Your task to perform on an android device: Open the stopwatch Image 0: 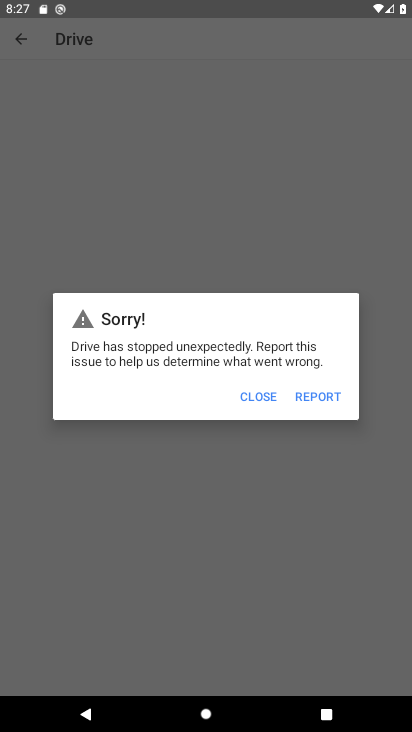
Step 0: press home button
Your task to perform on an android device: Open the stopwatch Image 1: 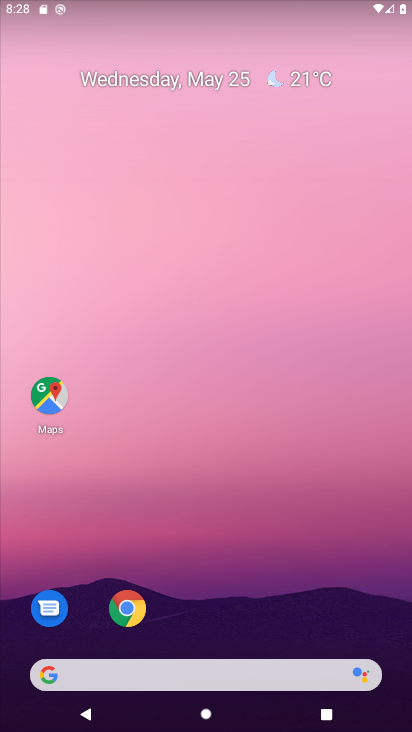
Step 1: drag from (224, 657) to (217, 170)
Your task to perform on an android device: Open the stopwatch Image 2: 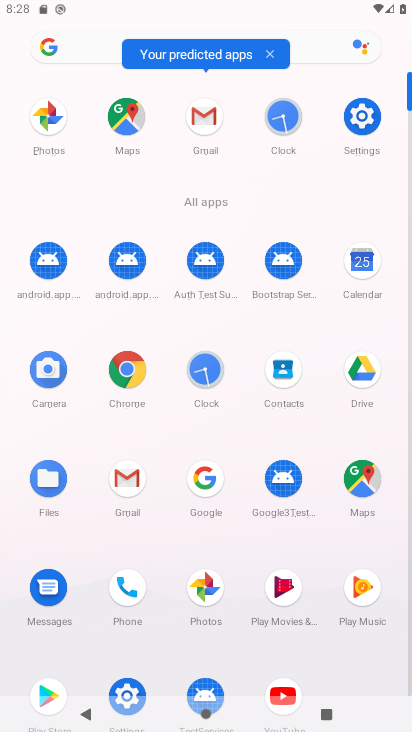
Step 2: click (199, 373)
Your task to perform on an android device: Open the stopwatch Image 3: 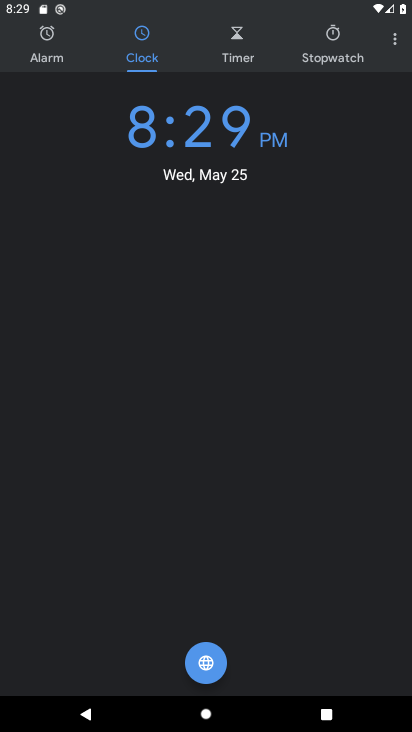
Step 3: click (333, 40)
Your task to perform on an android device: Open the stopwatch Image 4: 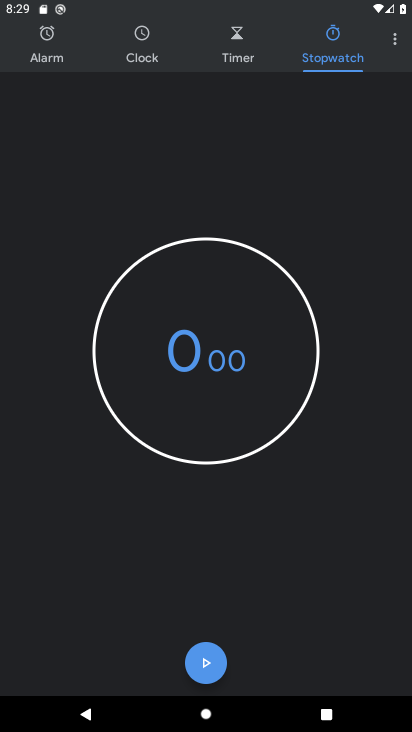
Step 4: task complete